Your task to perform on an android device: turn notification dots on Image 0: 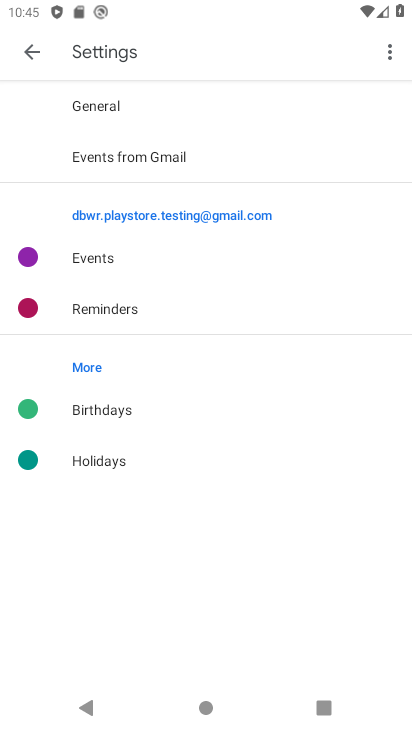
Step 0: press home button
Your task to perform on an android device: turn notification dots on Image 1: 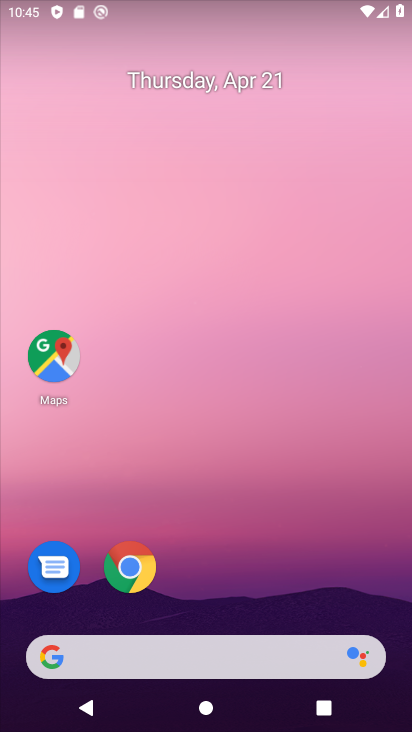
Step 1: drag from (233, 586) to (260, 47)
Your task to perform on an android device: turn notification dots on Image 2: 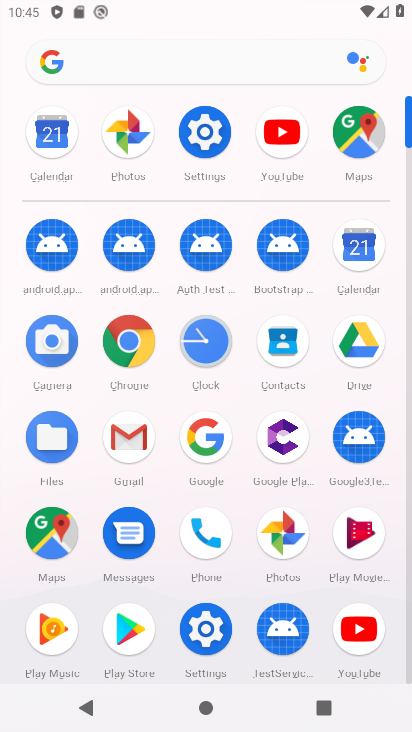
Step 2: click (198, 135)
Your task to perform on an android device: turn notification dots on Image 3: 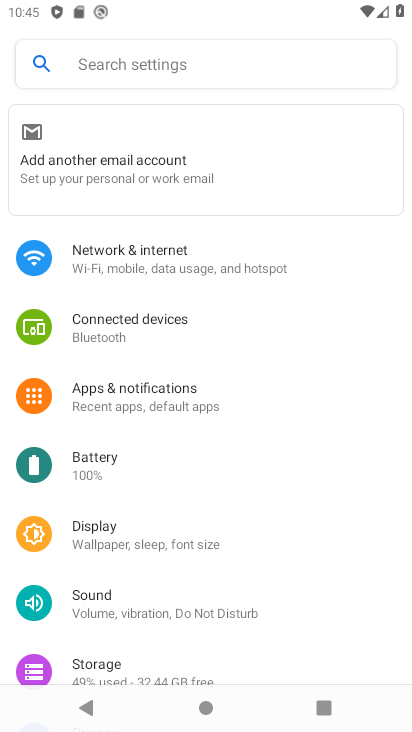
Step 3: click (158, 404)
Your task to perform on an android device: turn notification dots on Image 4: 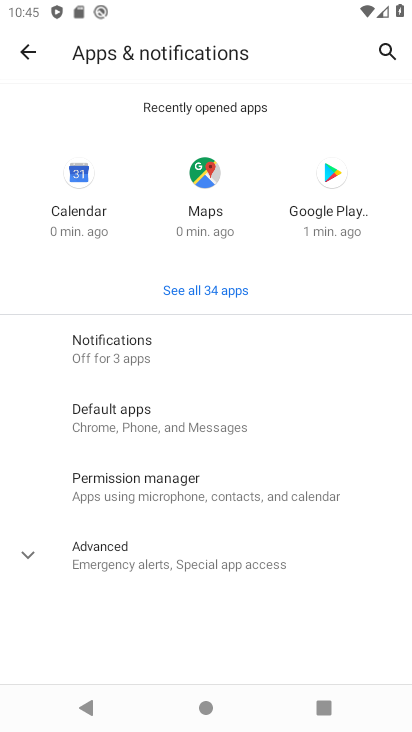
Step 4: click (109, 357)
Your task to perform on an android device: turn notification dots on Image 5: 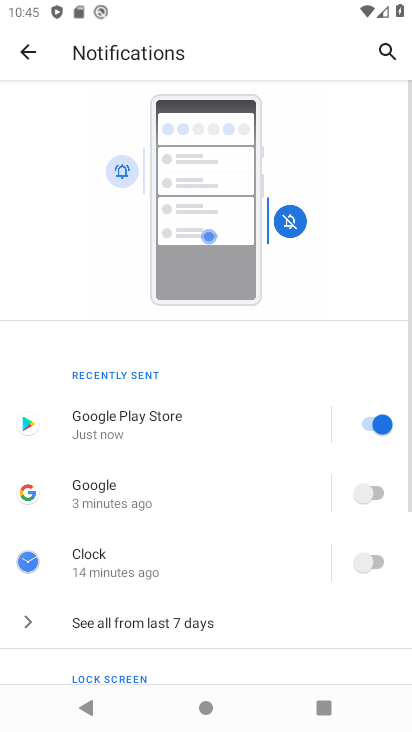
Step 5: drag from (198, 579) to (258, 114)
Your task to perform on an android device: turn notification dots on Image 6: 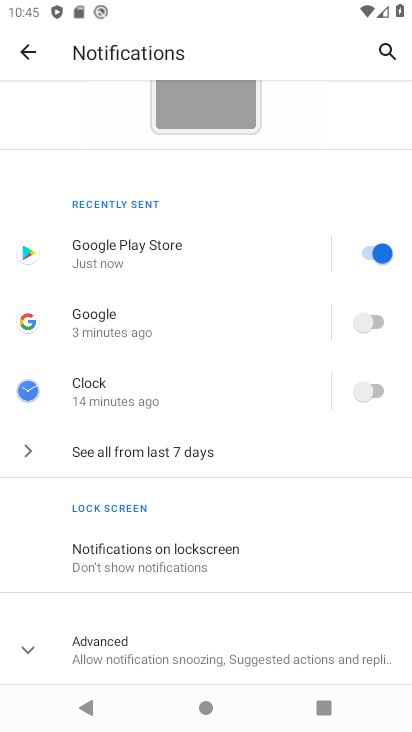
Step 6: click (96, 644)
Your task to perform on an android device: turn notification dots on Image 7: 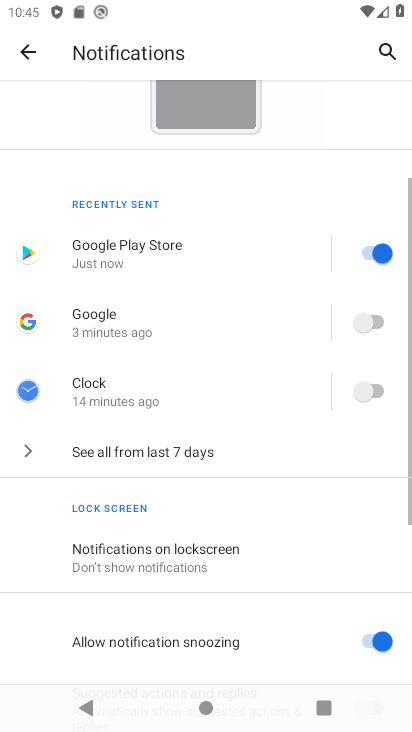
Step 7: drag from (183, 622) to (283, 170)
Your task to perform on an android device: turn notification dots on Image 8: 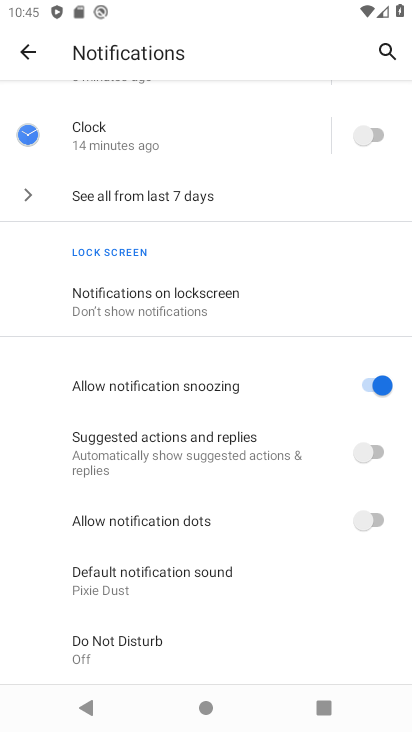
Step 8: click (388, 517)
Your task to perform on an android device: turn notification dots on Image 9: 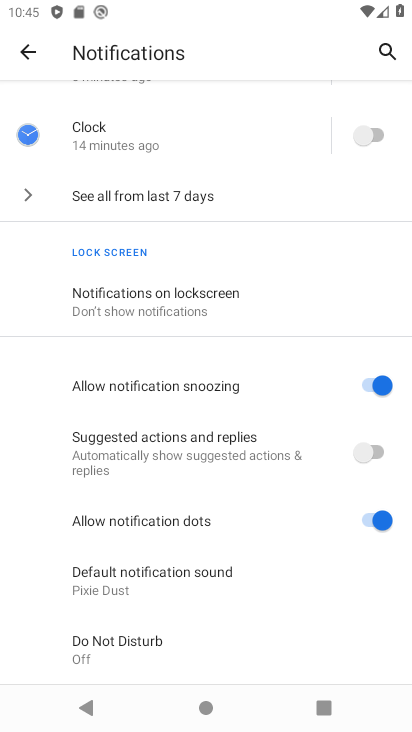
Step 9: task complete